Your task to perform on an android device: turn off smart reply in the gmail app Image 0: 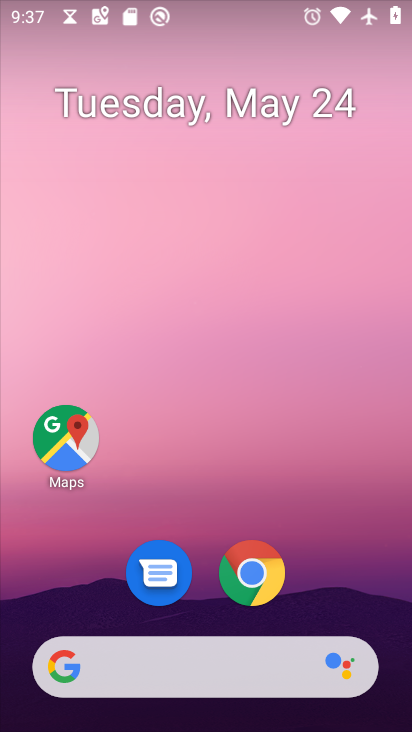
Step 0: drag from (366, 593) to (283, 13)
Your task to perform on an android device: turn off smart reply in the gmail app Image 1: 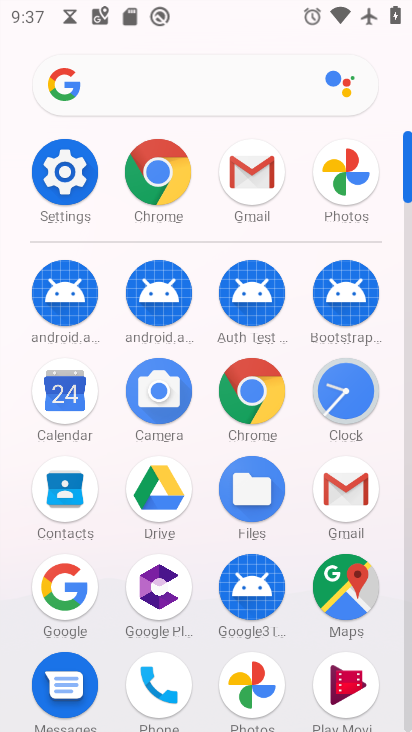
Step 1: click (249, 169)
Your task to perform on an android device: turn off smart reply in the gmail app Image 2: 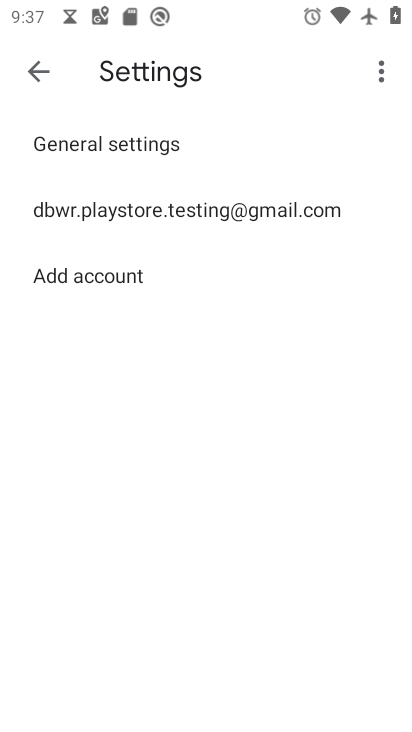
Step 2: click (40, 216)
Your task to perform on an android device: turn off smart reply in the gmail app Image 3: 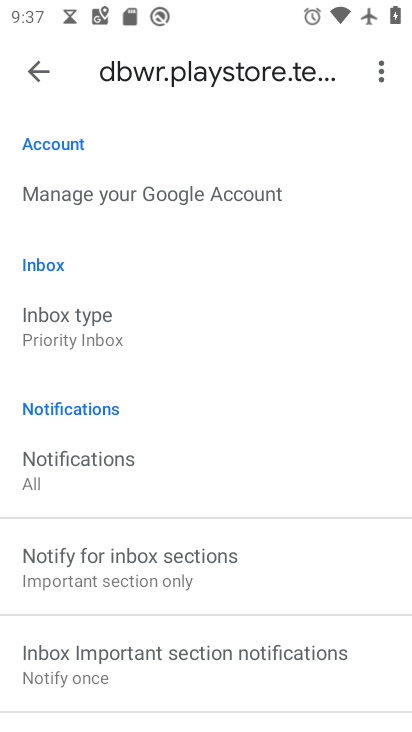
Step 3: task complete